Your task to perform on an android device: Go to Wikipedia Image 0: 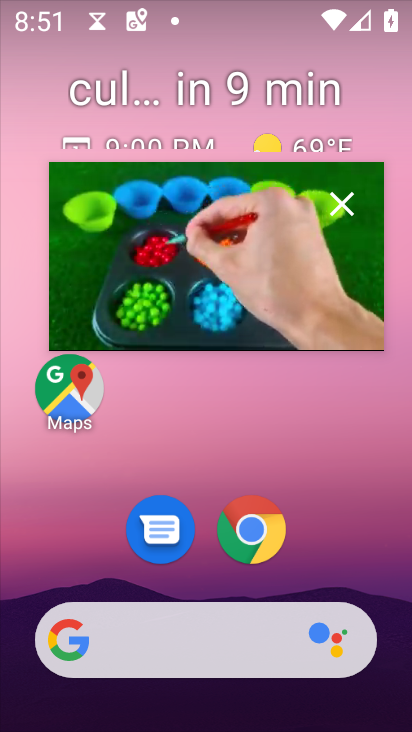
Step 0: click (334, 199)
Your task to perform on an android device: Go to Wikipedia Image 1: 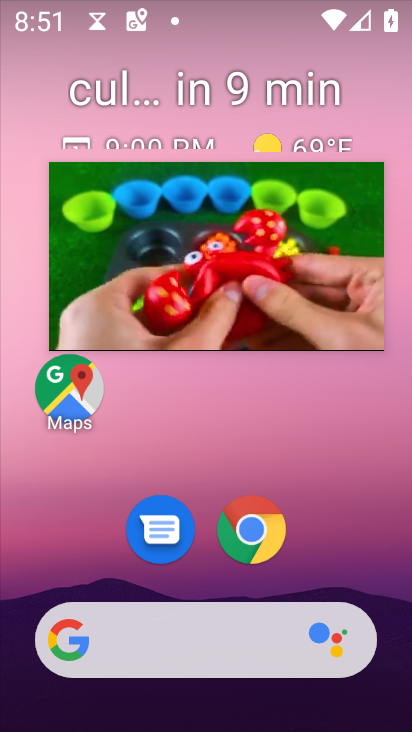
Step 1: click (352, 191)
Your task to perform on an android device: Go to Wikipedia Image 2: 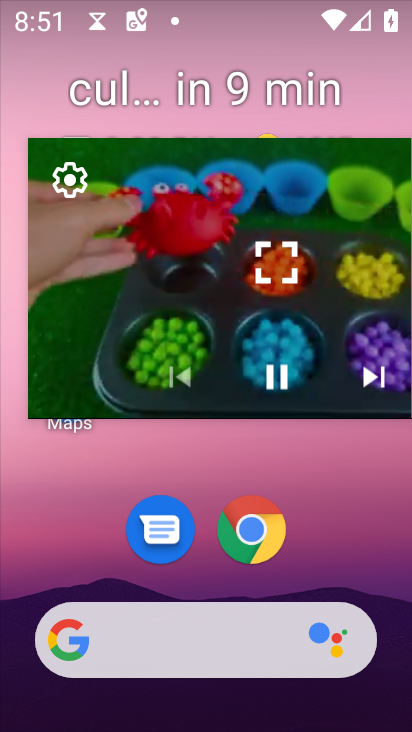
Step 2: click (363, 182)
Your task to perform on an android device: Go to Wikipedia Image 3: 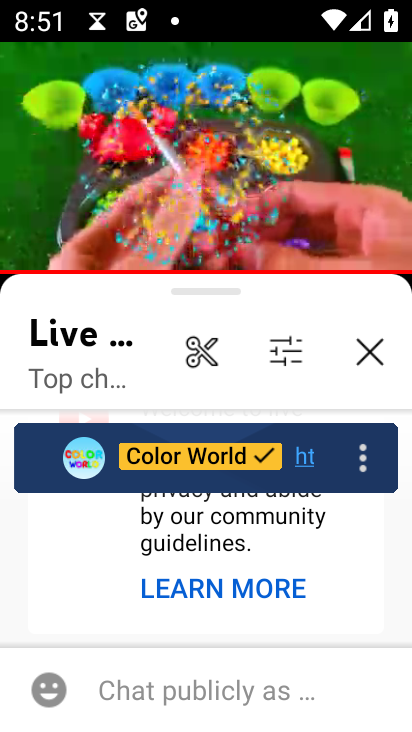
Step 3: click (380, 170)
Your task to perform on an android device: Go to Wikipedia Image 4: 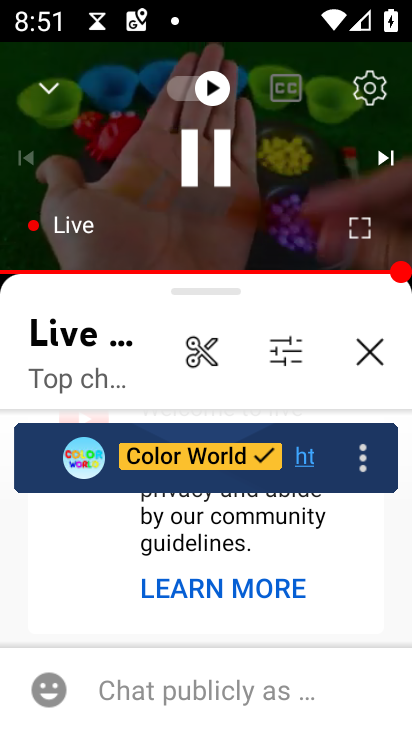
Step 4: click (207, 166)
Your task to perform on an android device: Go to Wikipedia Image 5: 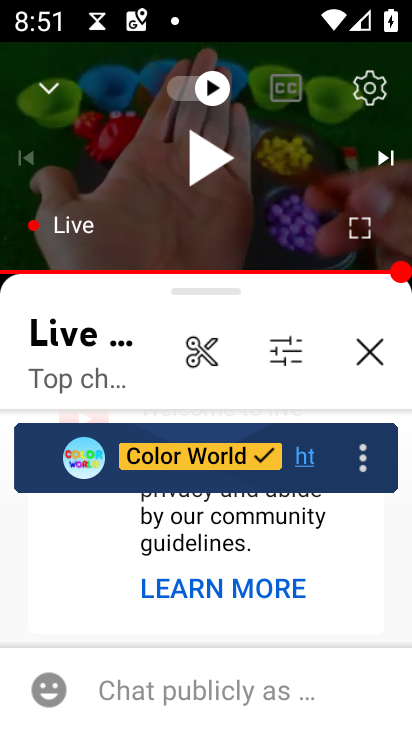
Step 5: press home button
Your task to perform on an android device: Go to Wikipedia Image 6: 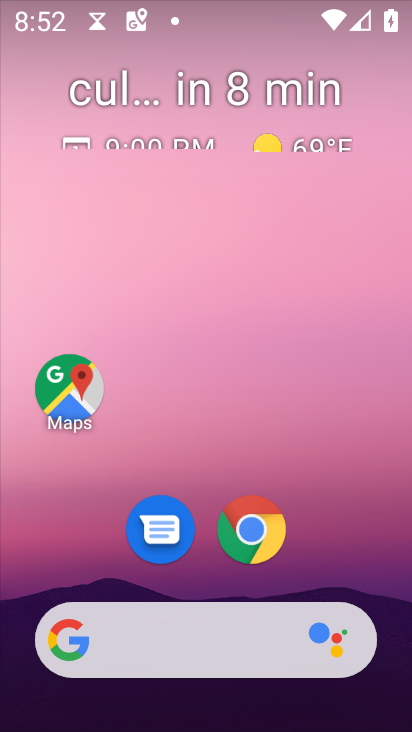
Step 6: click (118, 629)
Your task to perform on an android device: Go to Wikipedia Image 7: 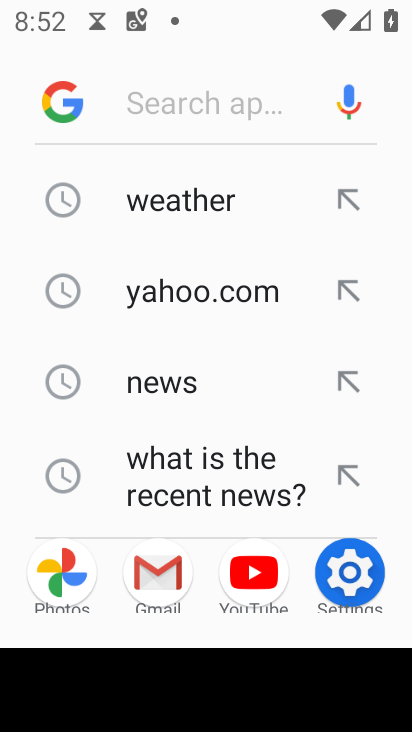
Step 7: press home button
Your task to perform on an android device: Go to Wikipedia Image 8: 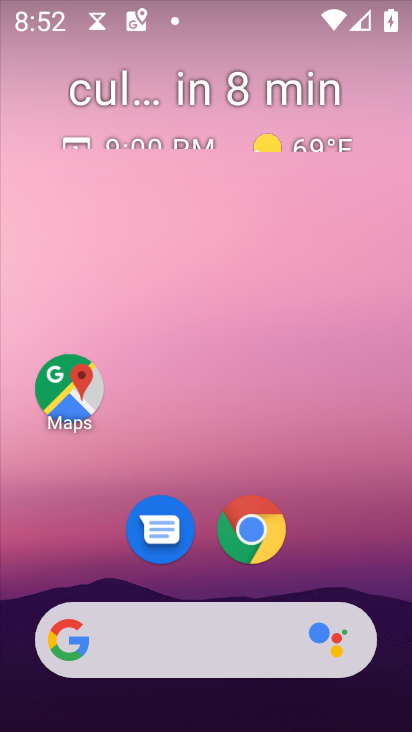
Step 8: click (252, 526)
Your task to perform on an android device: Go to Wikipedia Image 9: 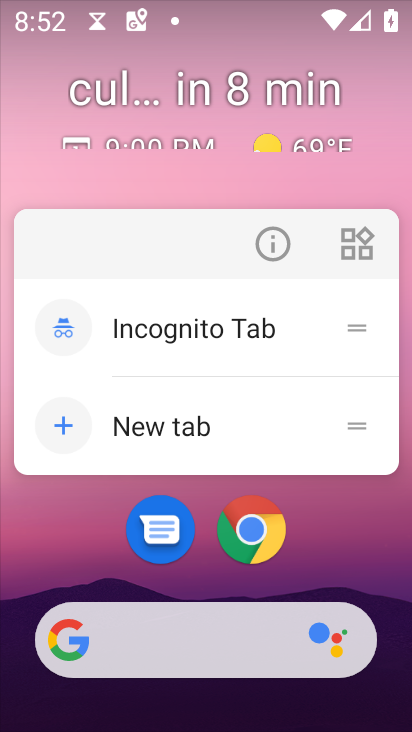
Step 9: click (250, 535)
Your task to perform on an android device: Go to Wikipedia Image 10: 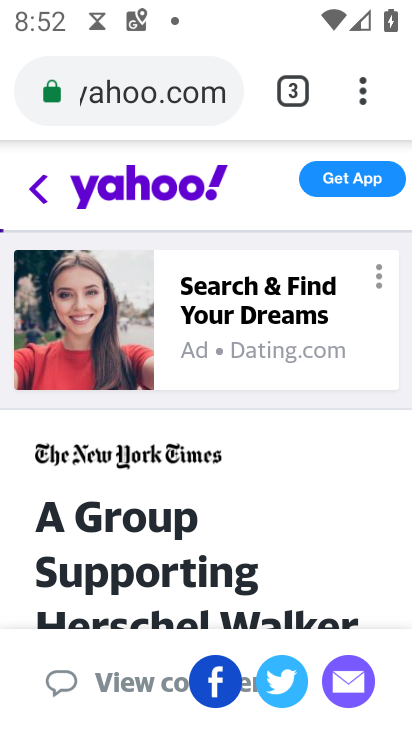
Step 10: click (295, 88)
Your task to perform on an android device: Go to Wikipedia Image 11: 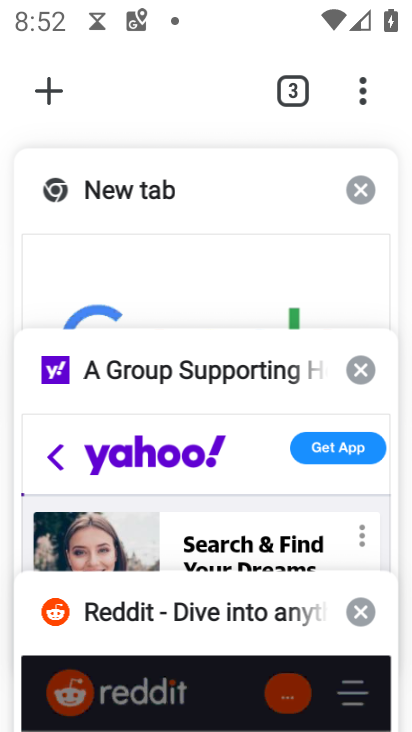
Step 11: click (183, 235)
Your task to perform on an android device: Go to Wikipedia Image 12: 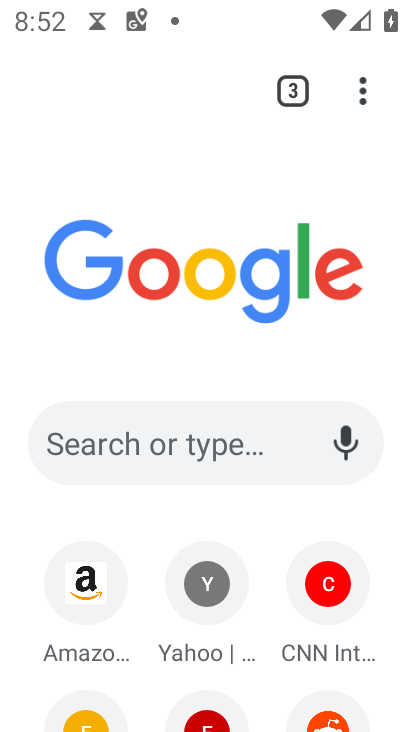
Step 12: drag from (249, 658) to (268, 297)
Your task to perform on an android device: Go to Wikipedia Image 13: 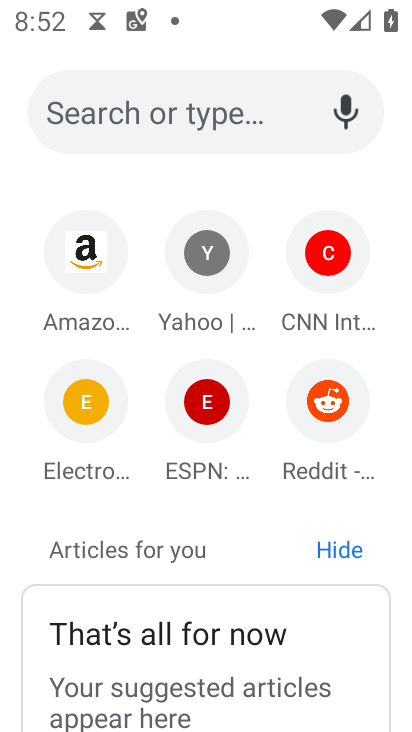
Step 13: click (202, 100)
Your task to perform on an android device: Go to Wikipedia Image 14: 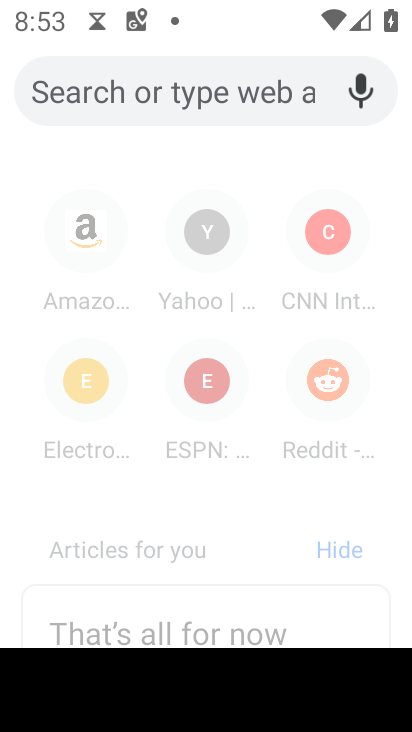
Step 14: type "Wikipedia"
Your task to perform on an android device: Go to Wikipedia Image 15: 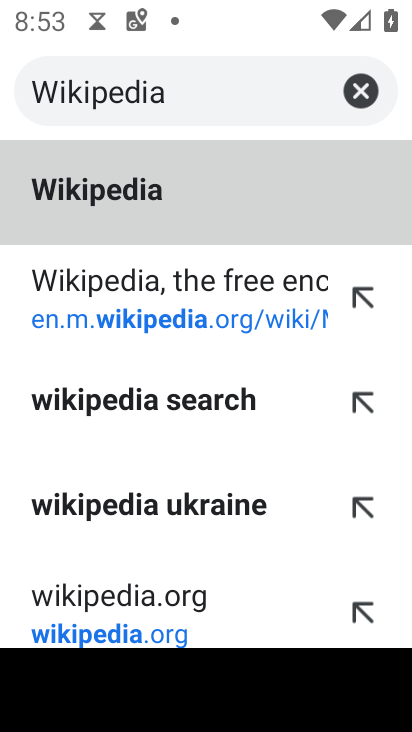
Step 15: click (264, 284)
Your task to perform on an android device: Go to Wikipedia Image 16: 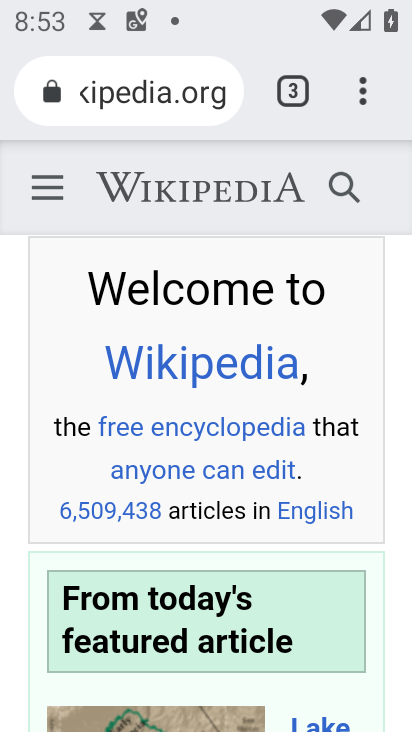
Step 16: task complete